Your task to perform on an android device: Search for vegetarian restaurants on Maps Image 0: 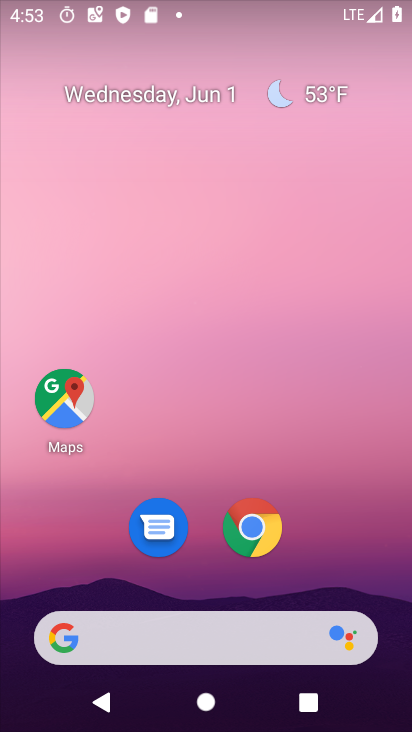
Step 0: press home button
Your task to perform on an android device: Search for vegetarian restaurants on Maps Image 1: 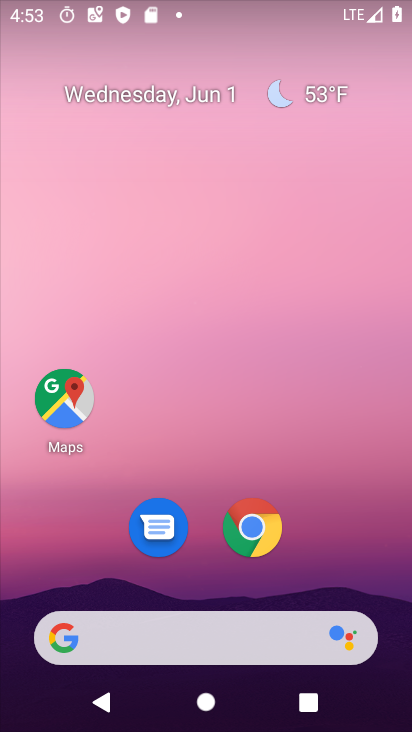
Step 1: drag from (305, 582) to (330, 86)
Your task to perform on an android device: Search for vegetarian restaurants on Maps Image 2: 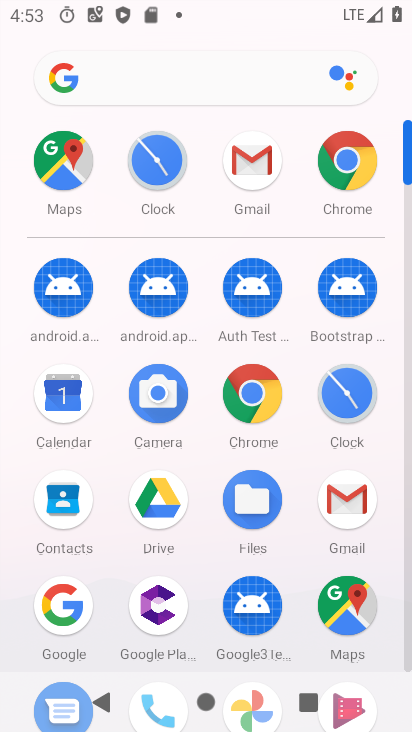
Step 2: click (352, 605)
Your task to perform on an android device: Search for vegetarian restaurants on Maps Image 3: 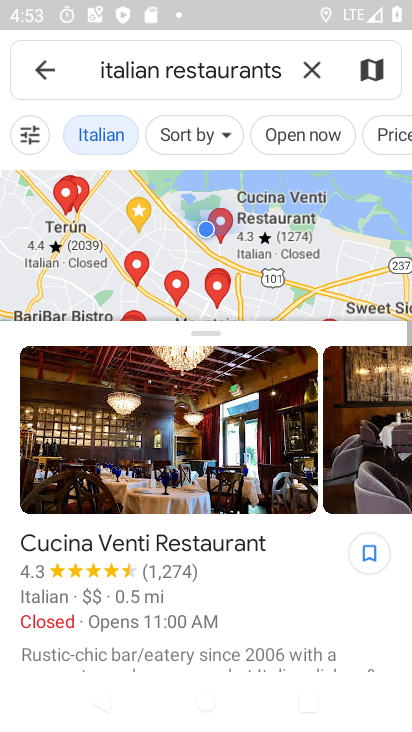
Step 3: click (310, 68)
Your task to perform on an android device: Search for vegetarian restaurants on Maps Image 4: 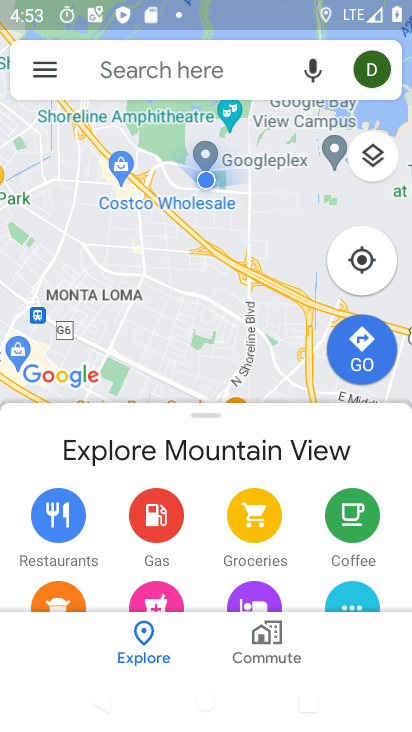
Step 4: click (134, 56)
Your task to perform on an android device: Search for vegetarian restaurants on Maps Image 5: 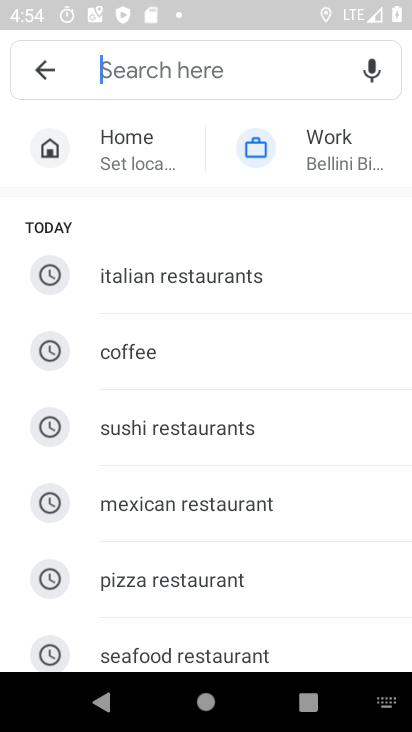
Step 5: type "vegetarian restaurants"
Your task to perform on an android device: Search for vegetarian restaurants on Maps Image 6: 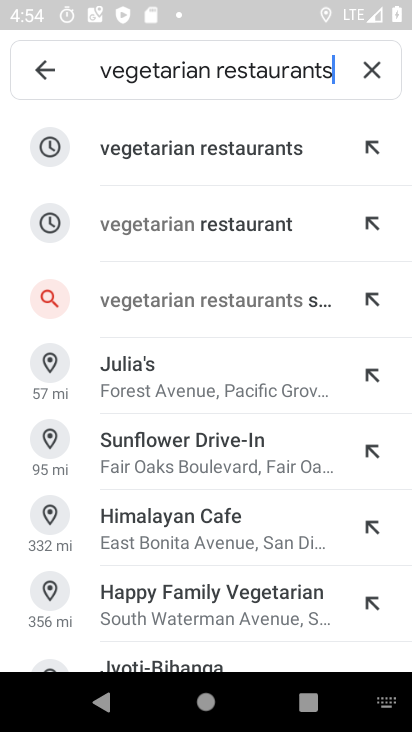
Step 6: click (187, 152)
Your task to perform on an android device: Search for vegetarian restaurants on Maps Image 7: 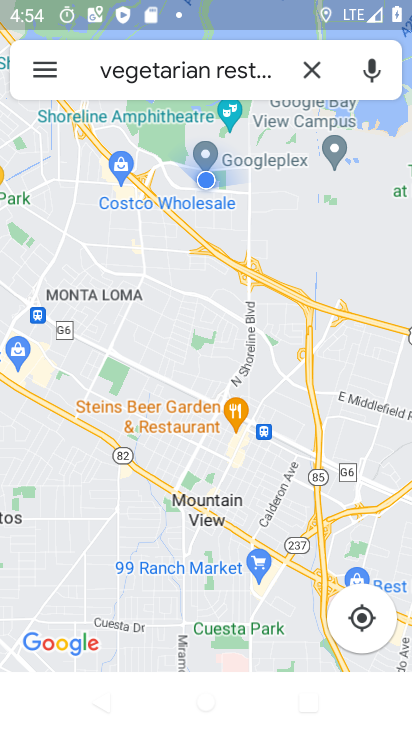
Step 7: task complete